Your task to perform on an android device: Open settings on Google Maps Image 0: 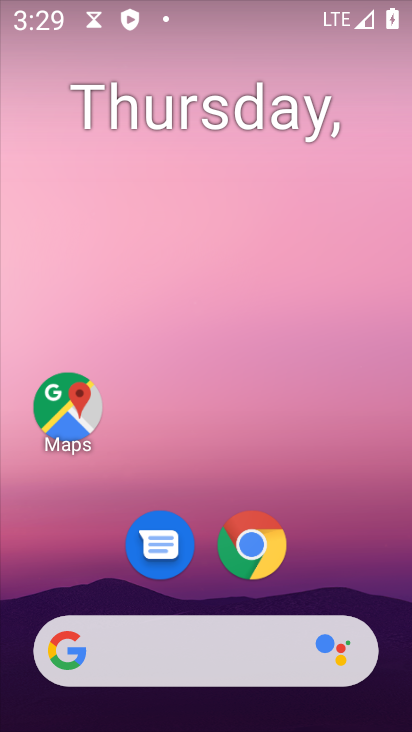
Step 0: drag from (345, 531) to (317, 49)
Your task to perform on an android device: Open settings on Google Maps Image 1: 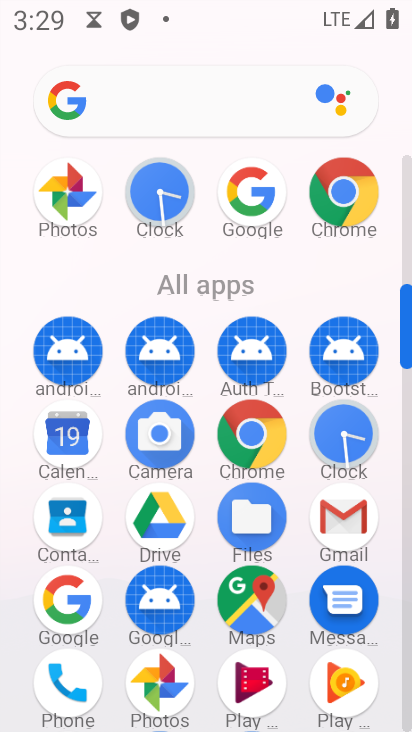
Step 1: click (269, 600)
Your task to perform on an android device: Open settings on Google Maps Image 2: 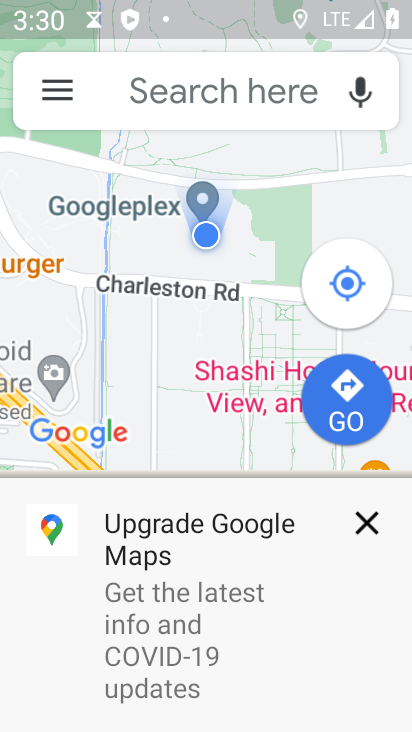
Step 2: task complete